Your task to perform on an android device: turn vacation reply on in the gmail app Image 0: 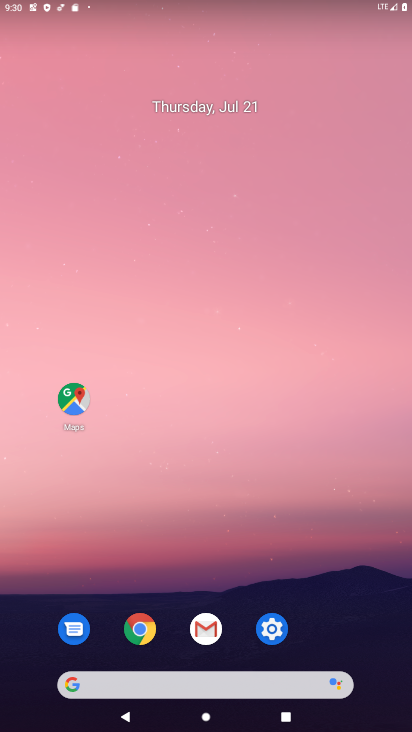
Step 0: click (206, 637)
Your task to perform on an android device: turn vacation reply on in the gmail app Image 1: 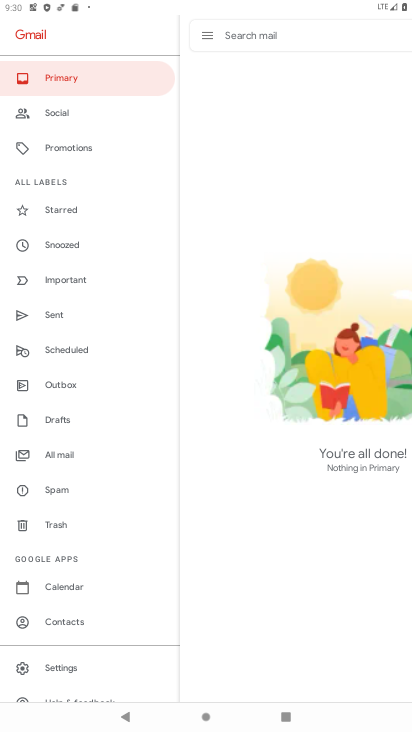
Step 1: click (53, 664)
Your task to perform on an android device: turn vacation reply on in the gmail app Image 2: 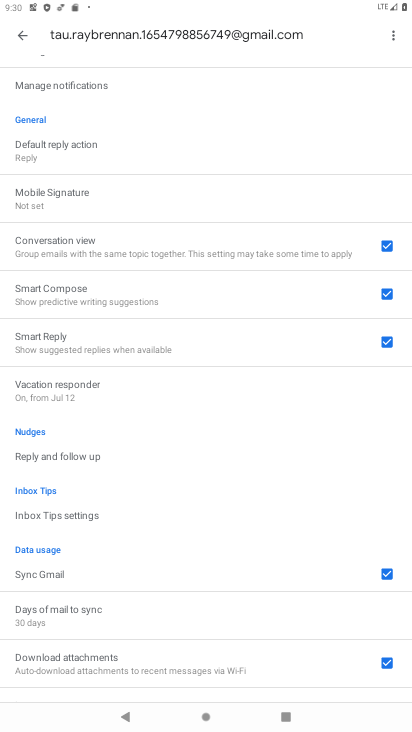
Step 2: drag from (133, 608) to (167, 432)
Your task to perform on an android device: turn vacation reply on in the gmail app Image 3: 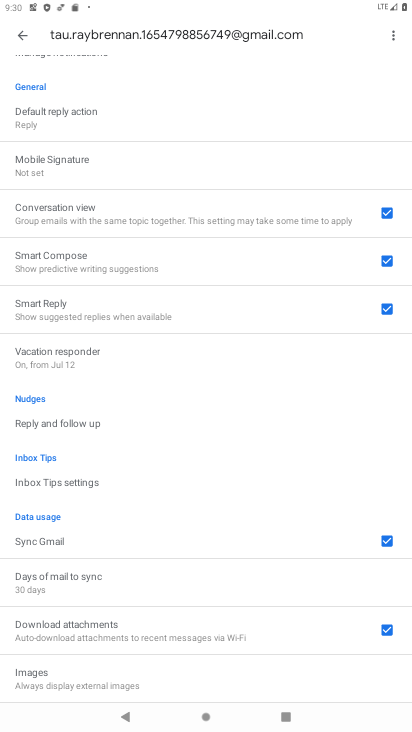
Step 3: click (122, 361)
Your task to perform on an android device: turn vacation reply on in the gmail app Image 4: 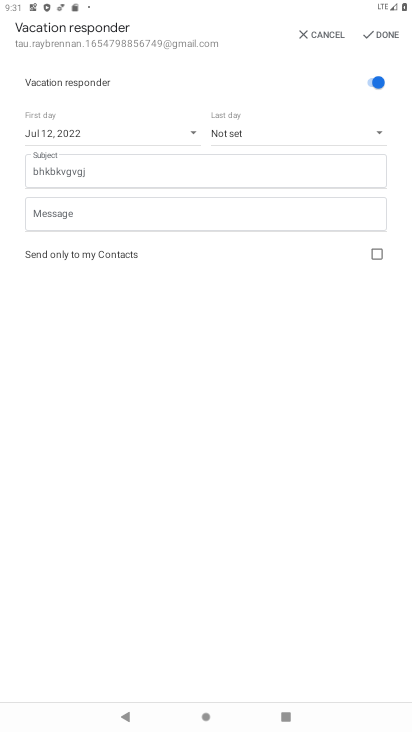
Step 4: task complete